Your task to perform on an android device: Go to Google Image 0: 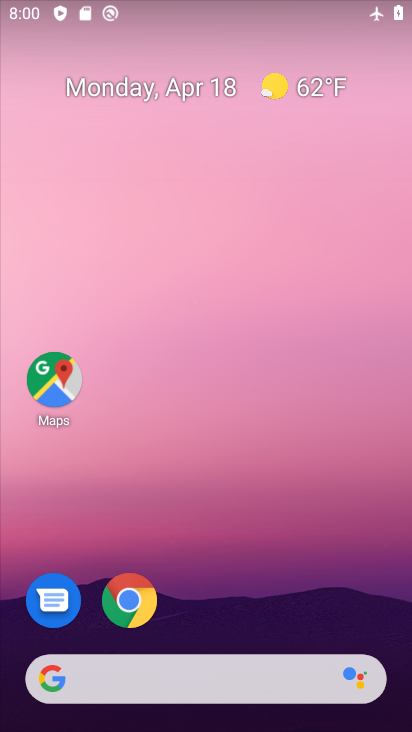
Step 0: drag from (213, 613) to (209, 59)
Your task to perform on an android device: Go to Google Image 1: 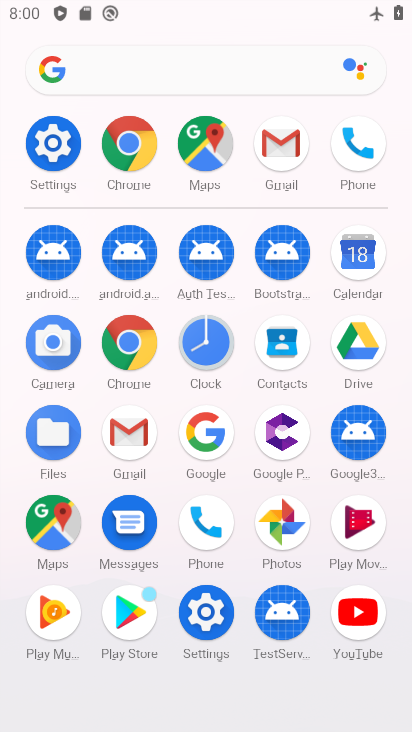
Step 1: click (208, 425)
Your task to perform on an android device: Go to Google Image 2: 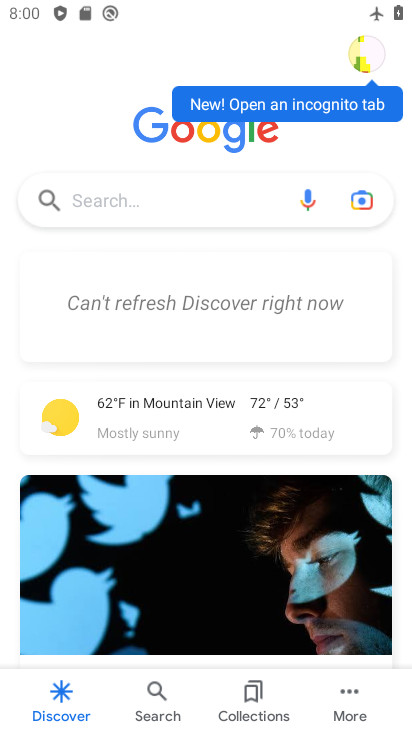
Step 2: task complete